Your task to perform on an android device: Show me popular videos on Youtube Image 0: 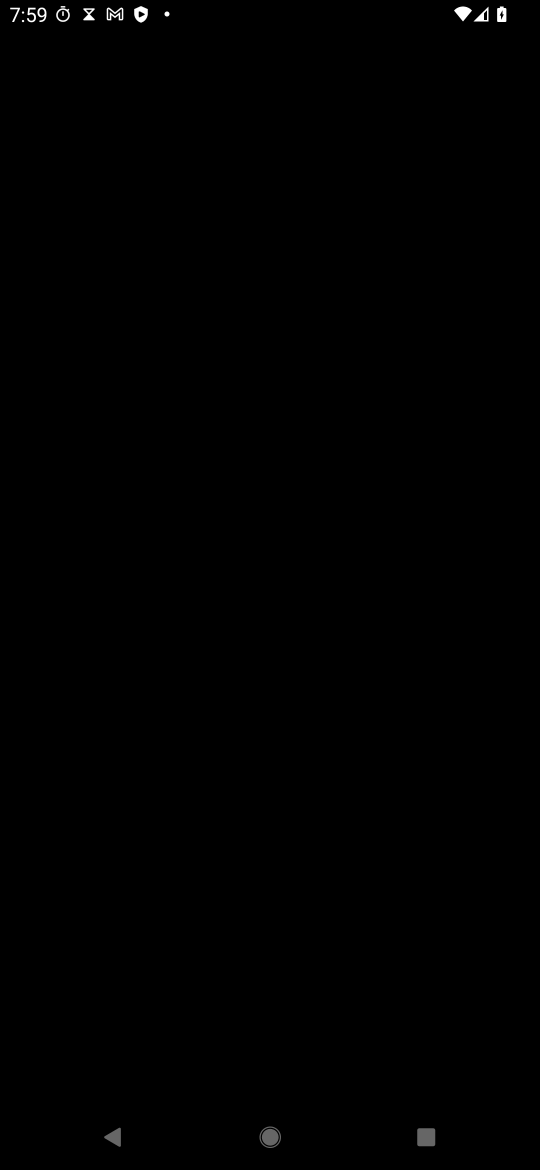
Step 0: press home button
Your task to perform on an android device: Show me popular videos on Youtube Image 1: 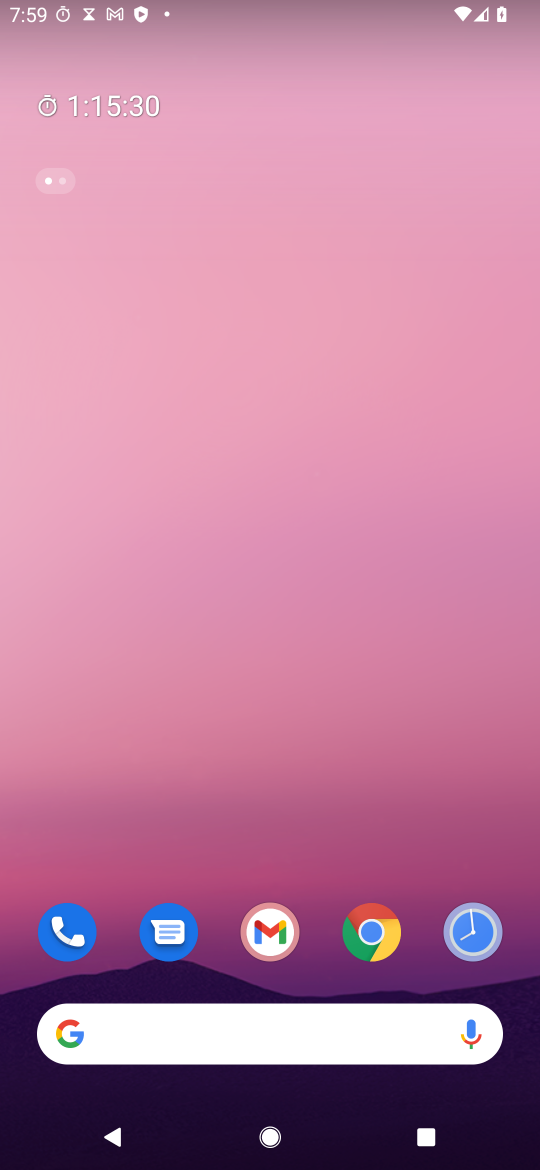
Step 1: drag from (414, 981) to (435, 251)
Your task to perform on an android device: Show me popular videos on Youtube Image 2: 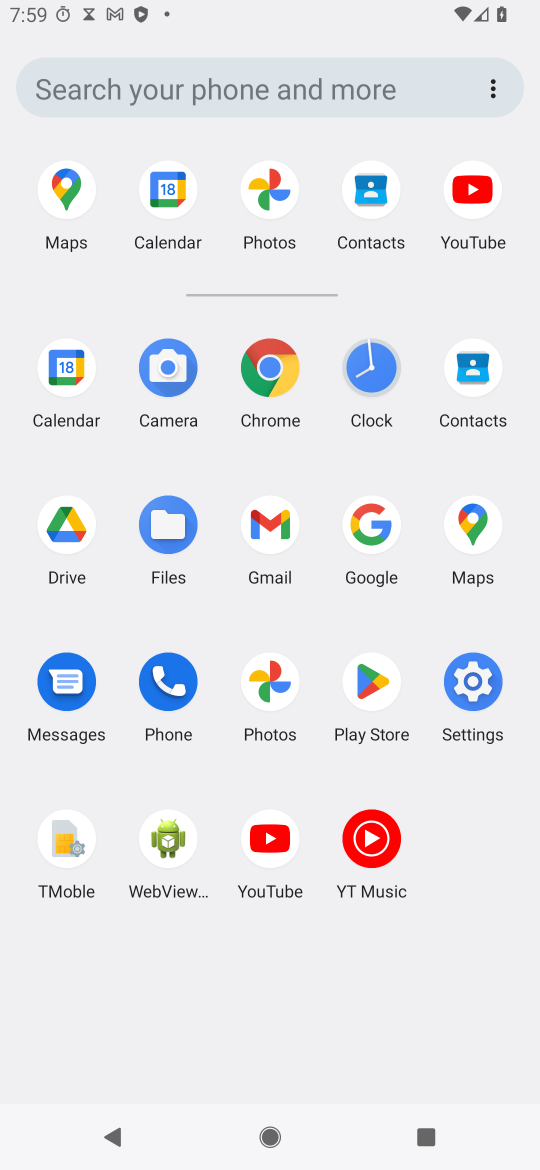
Step 2: click (274, 824)
Your task to perform on an android device: Show me popular videos on Youtube Image 3: 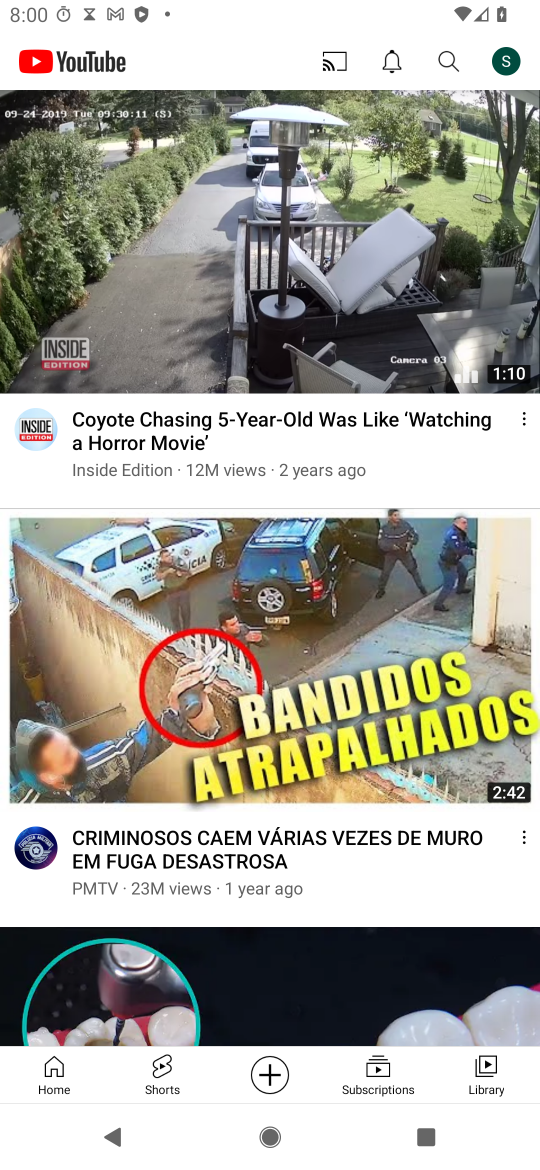
Step 3: click (444, 54)
Your task to perform on an android device: Show me popular videos on Youtube Image 4: 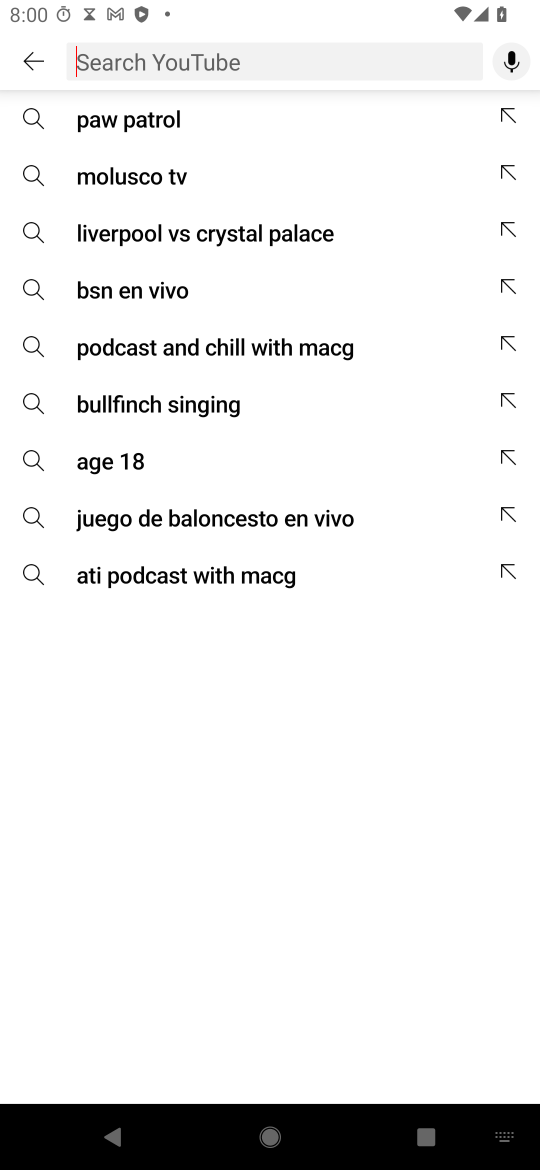
Step 4: type " popular videos"
Your task to perform on an android device: Show me popular videos on Youtube Image 5: 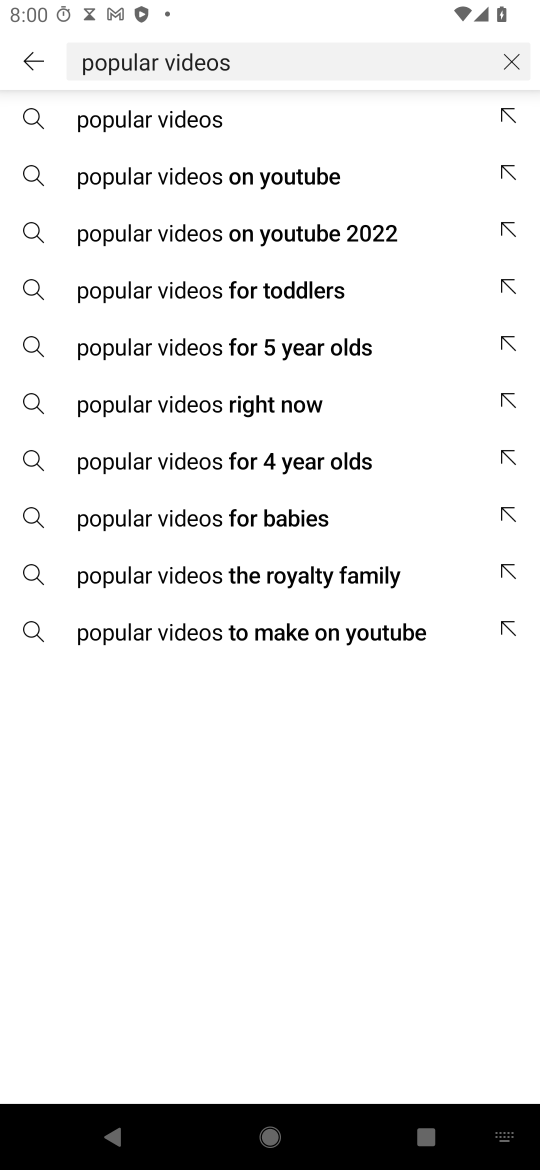
Step 5: click (147, 110)
Your task to perform on an android device: Show me popular videos on Youtube Image 6: 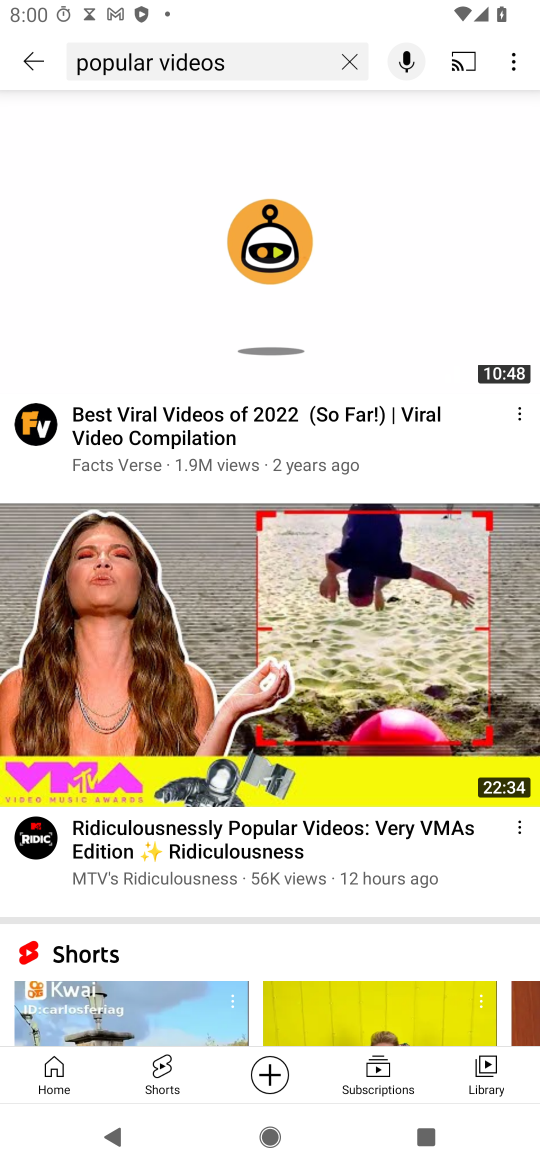
Step 6: task complete